Your task to perform on an android device: Open Google Maps and go to "Timeline" Image 0: 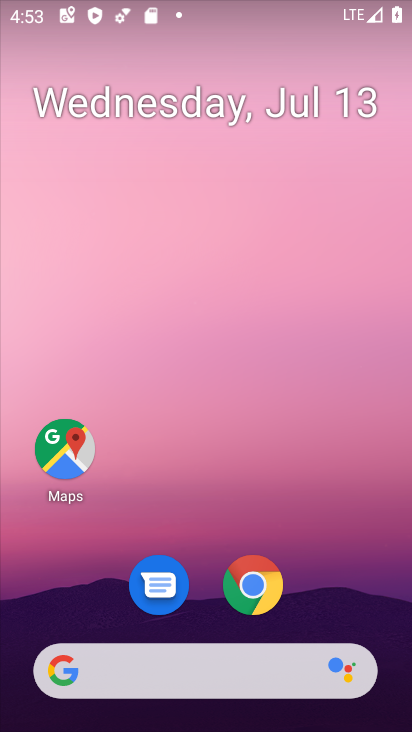
Step 0: click (67, 443)
Your task to perform on an android device: Open Google Maps and go to "Timeline" Image 1: 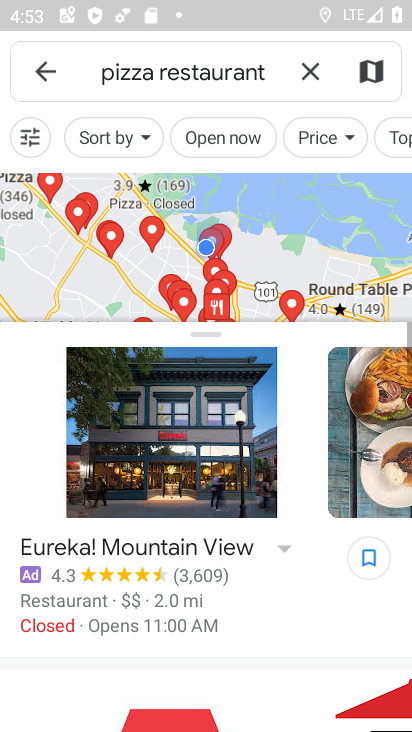
Step 1: click (47, 69)
Your task to perform on an android device: Open Google Maps and go to "Timeline" Image 2: 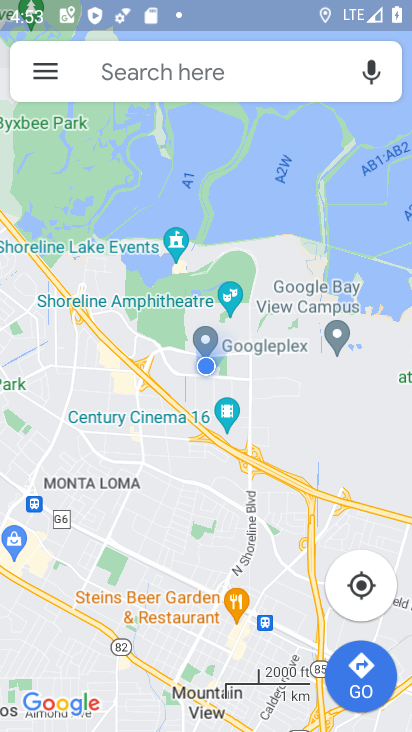
Step 2: click (47, 69)
Your task to perform on an android device: Open Google Maps and go to "Timeline" Image 3: 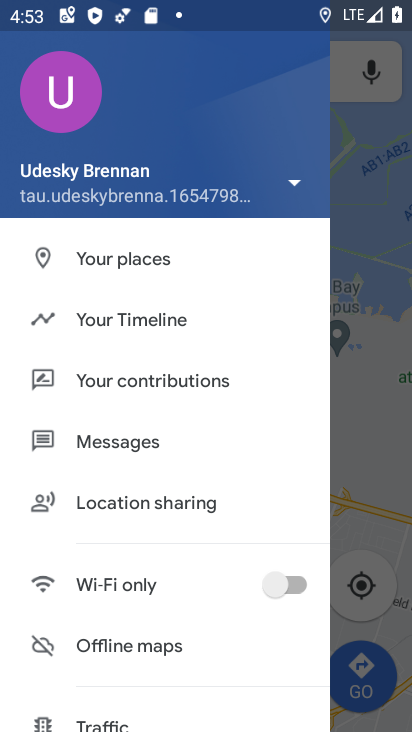
Step 3: click (122, 313)
Your task to perform on an android device: Open Google Maps and go to "Timeline" Image 4: 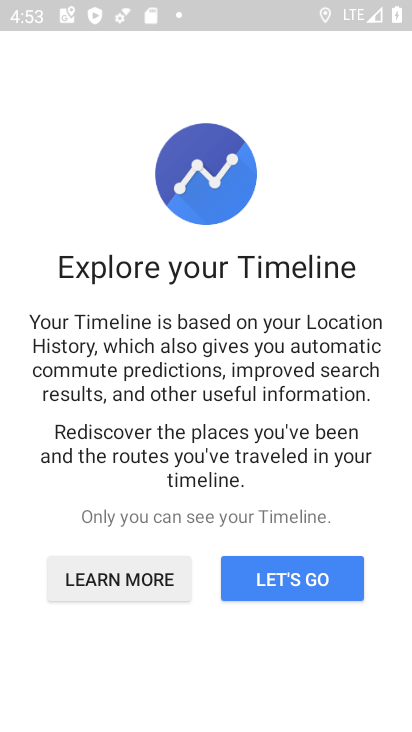
Step 4: click (309, 573)
Your task to perform on an android device: Open Google Maps and go to "Timeline" Image 5: 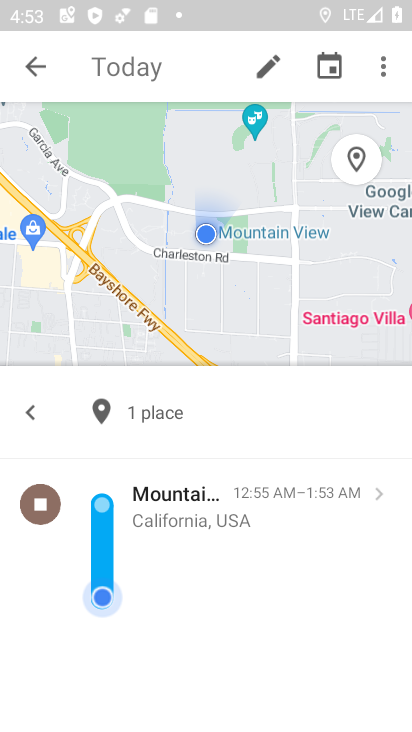
Step 5: task complete